Your task to perform on an android device: Open ESPN.com Image 0: 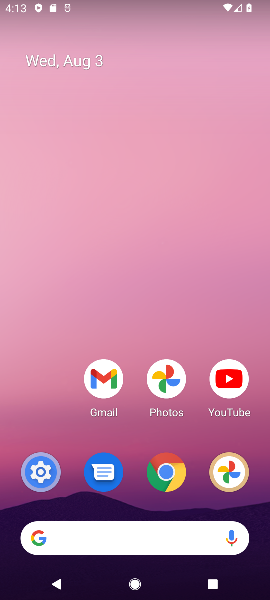
Step 0: drag from (128, 436) to (212, 81)
Your task to perform on an android device: Open ESPN.com Image 1: 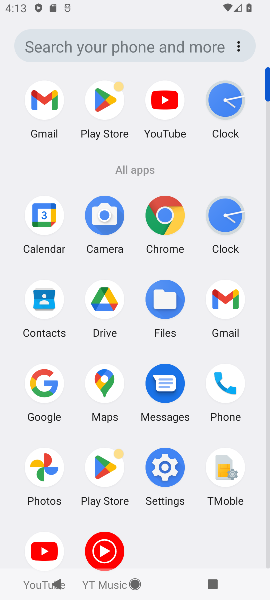
Step 1: click (166, 216)
Your task to perform on an android device: Open ESPN.com Image 2: 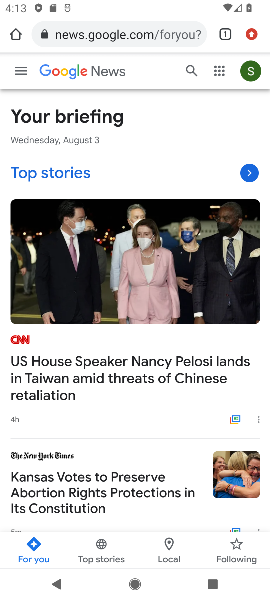
Step 2: click (86, 37)
Your task to perform on an android device: Open ESPN.com Image 3: 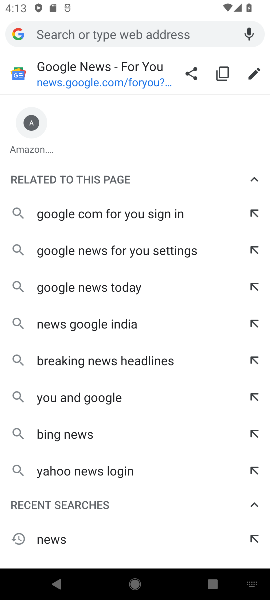
Step 3: type "ESPN.com"
Your task to perform on an android device: Open ESPN.com Image 4: 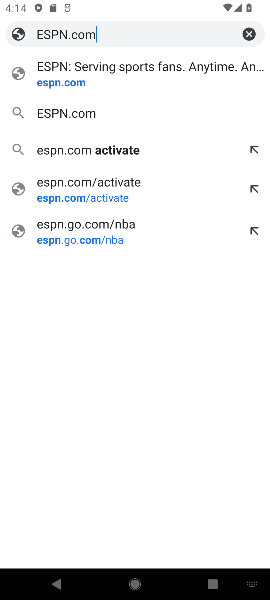
Step 4: click (76, 69)
Your task to perform on an android device: Open ESPN.com Image 5: 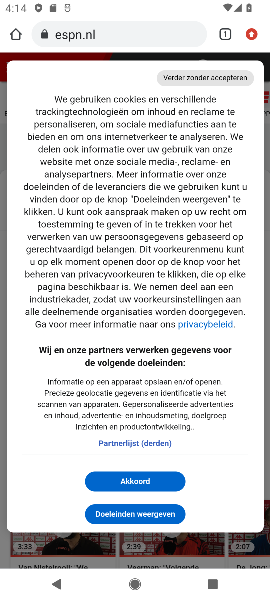
Step 5: task complete